Your task to perform on an android device: What's on my calendar tomorrow? Image 0: 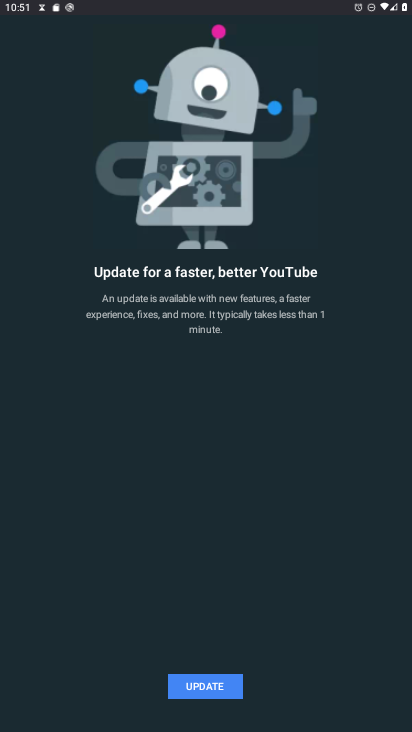
Step 0: press home button
Your task to perform on an android device: What's on my calendar tomorrow? Image 1: 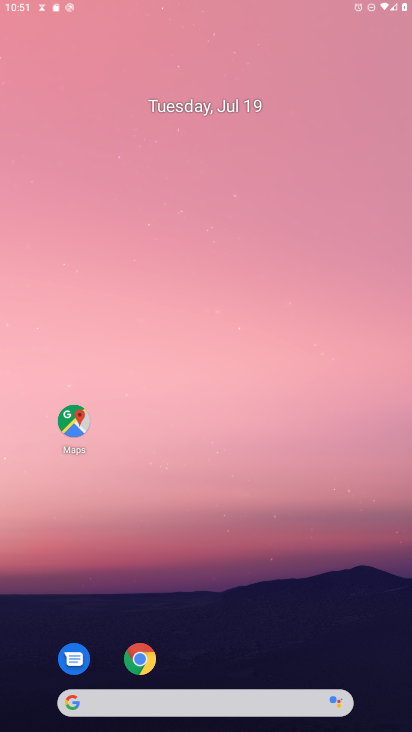
Step 1: drag from (281, 566) to (260, 275)
Your task to perform on an android device: What's on my calendar tomorrow? Image 2: 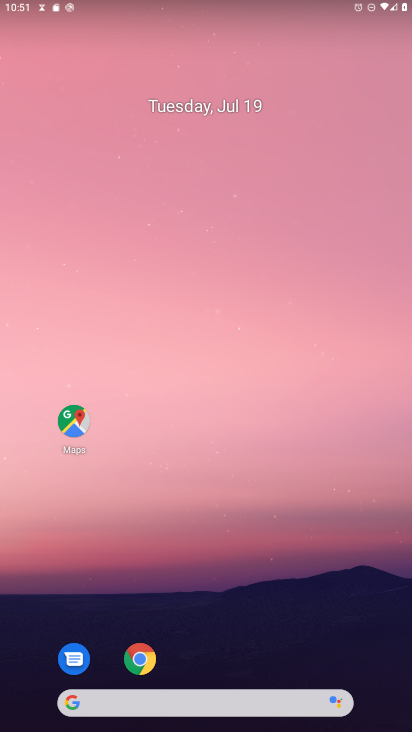
Step 2: drag from (250, 640) to (191, 190)
Your task to perform on an android device: What's on my calendar tomorrow? Image 3: 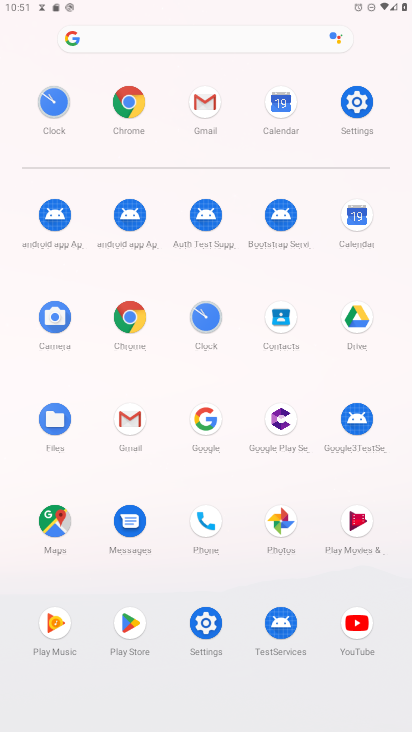
Step 3: click (367, 217)
Your task to perform on an android device: What's on my calendar tomorrow? Image 4: 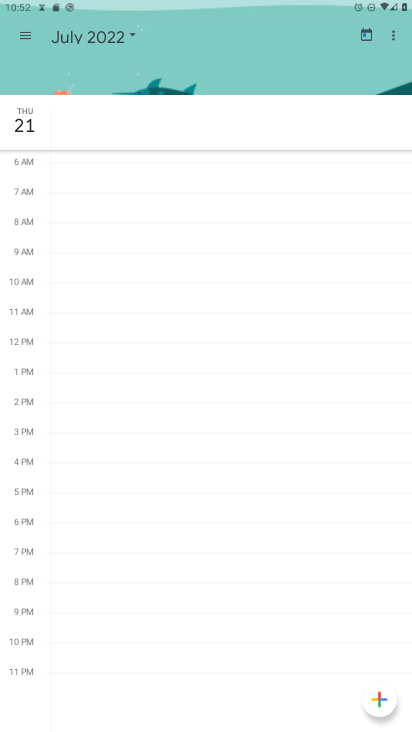
Step 4: task complete